Your task to perform on an android device: turn off notifications settings in the gmail app Image 0: 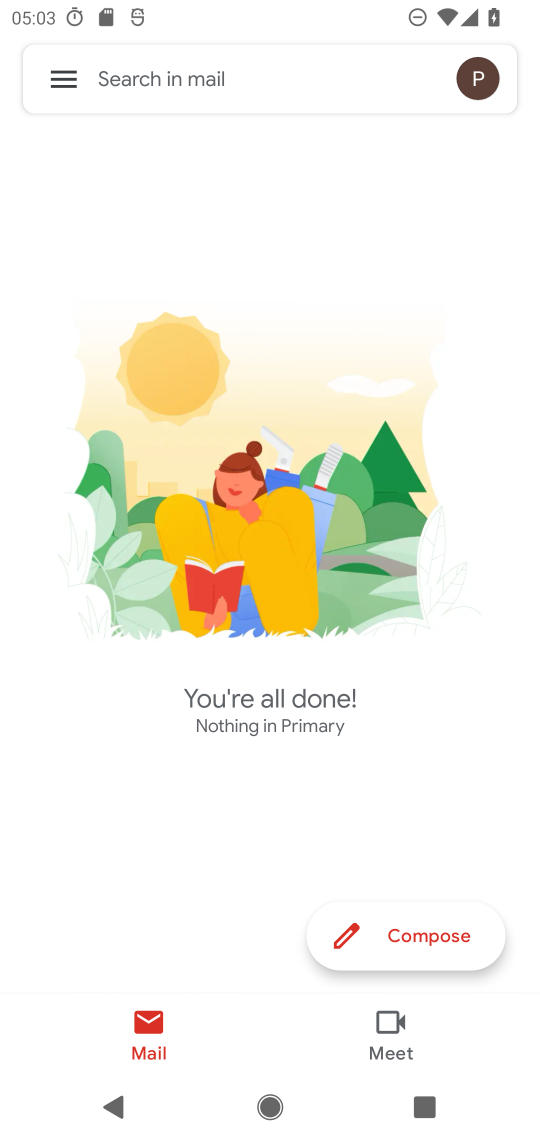
Step 0: press home button
Your task to perform on an android device: turn off notifications settings in the gmail app Image 1: 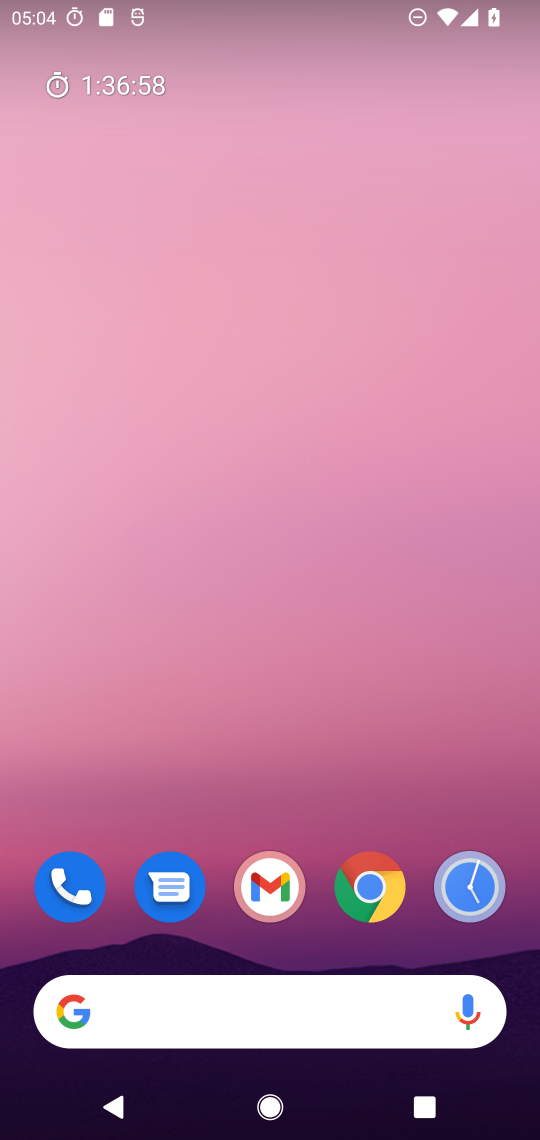
Step 1: drag from (391, 806) to (426, 423)
Your task to perform on an android device: turn off notifications settings in the gmail app Image 2: 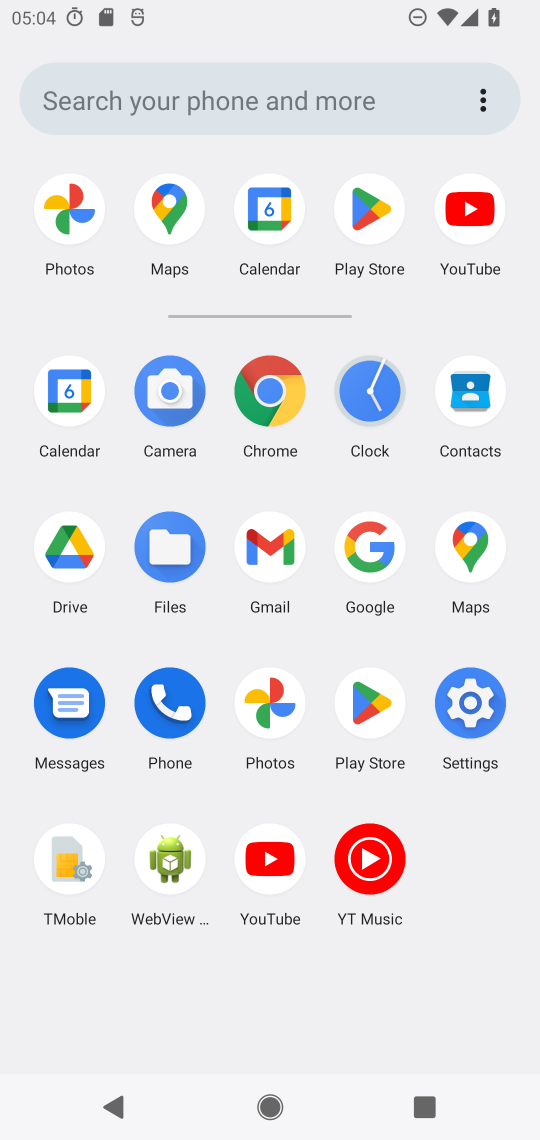
Step 2: click (284, 541)
Your task to perform on an android device: turn off notifications settings in the gmail app Image 3: 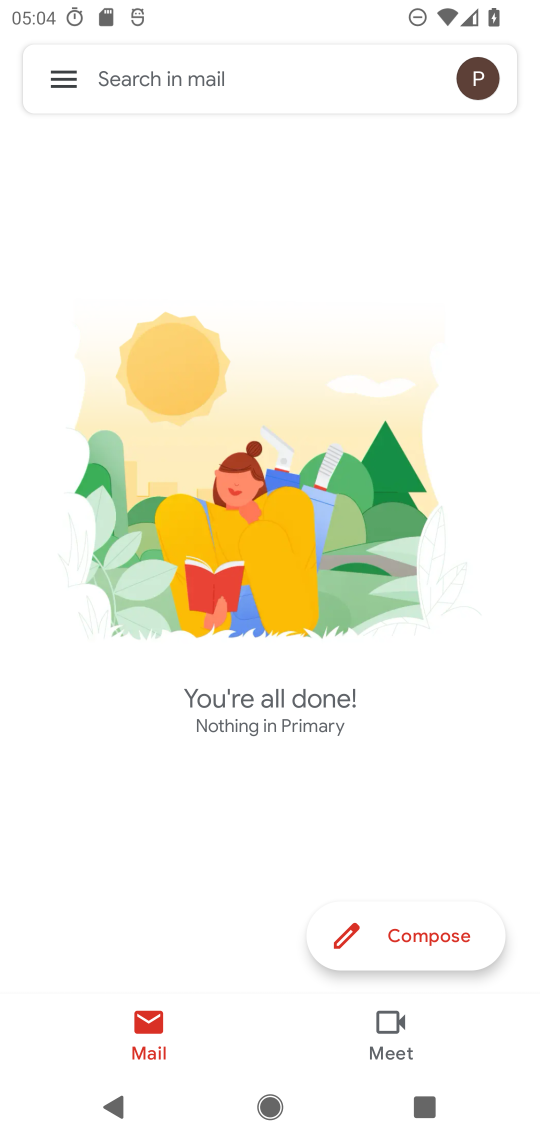
Step 3: click (63, 86)
Your task to perform on an android device: turn off notifications settings in the gmail app Image 4: 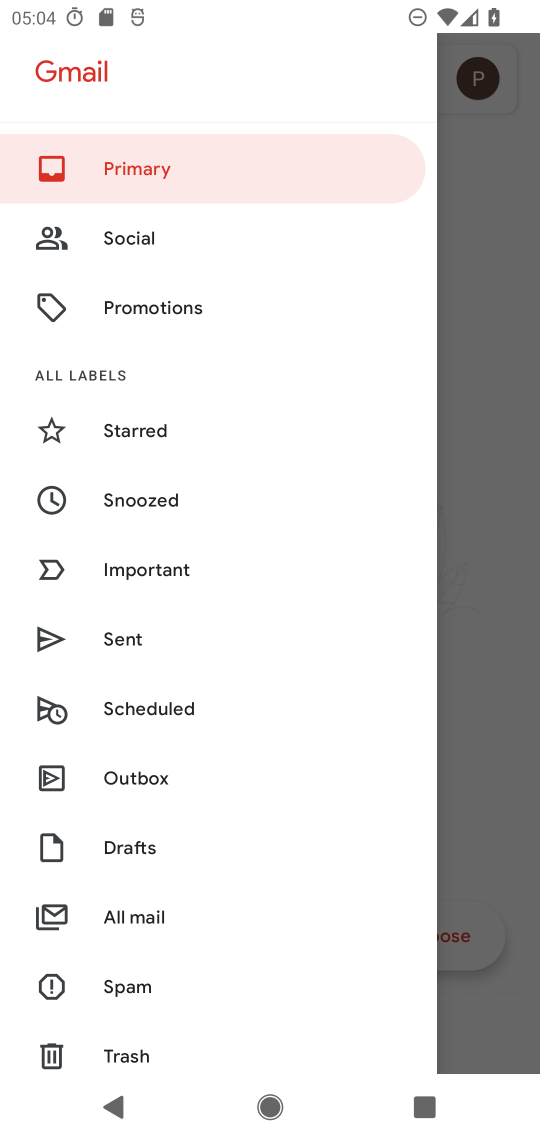
Step 4: drag from (291, 568) to (307, 432)
Your task to perform on an android device: turn off notifications settings in the gmail app Image 5: 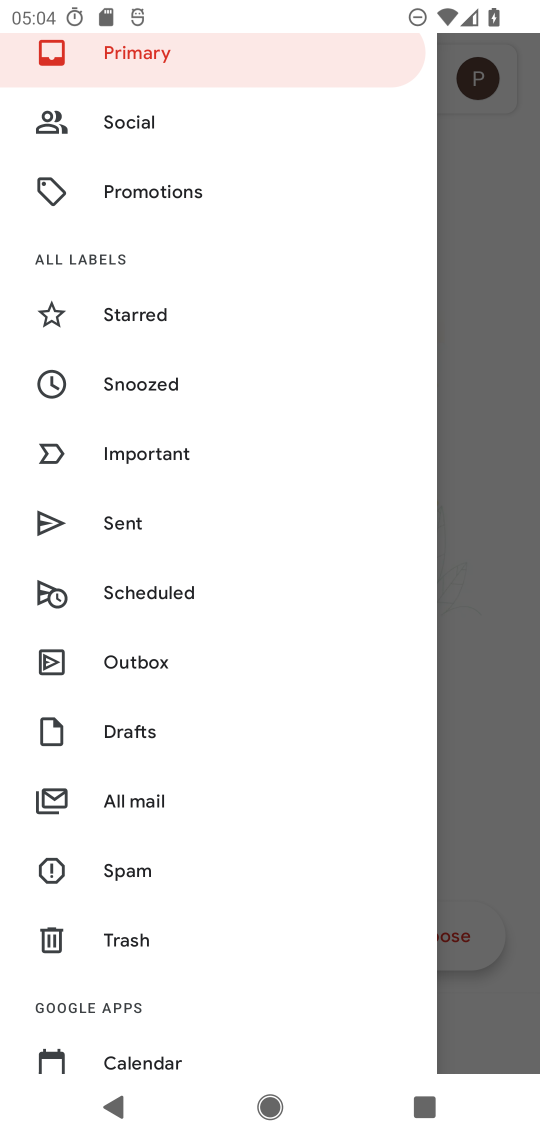
Step 5: drag from (306, 662) to (315, 437)
Your task to perform on an android device: turn off notifications settings in the gmail app Image 6: 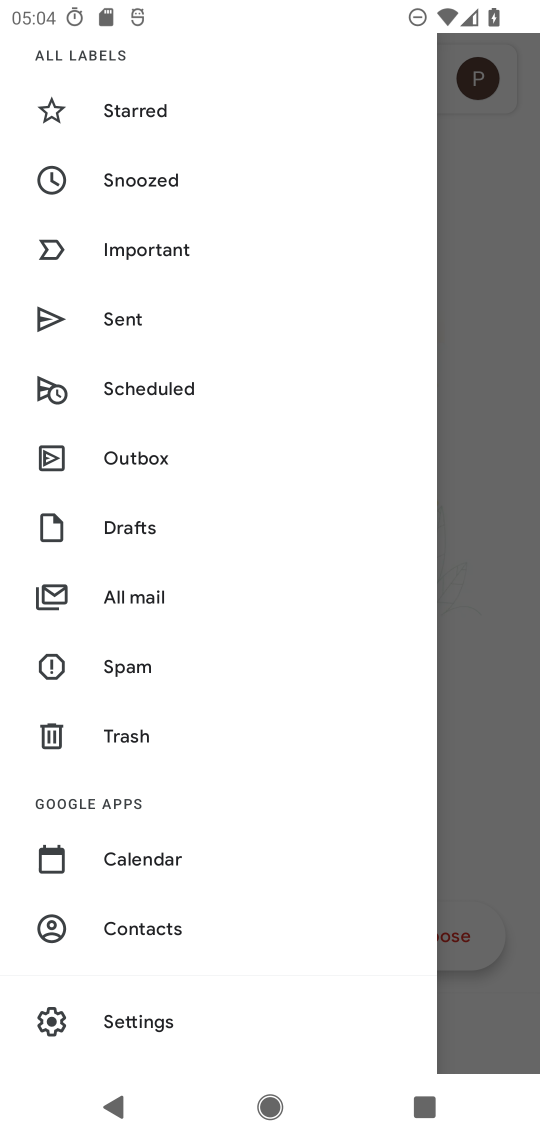
Step 6: drag from (296, 670) to (317, 502)
Your task to perform on an android device: turn off notifications settings in the gmail app Image 7: 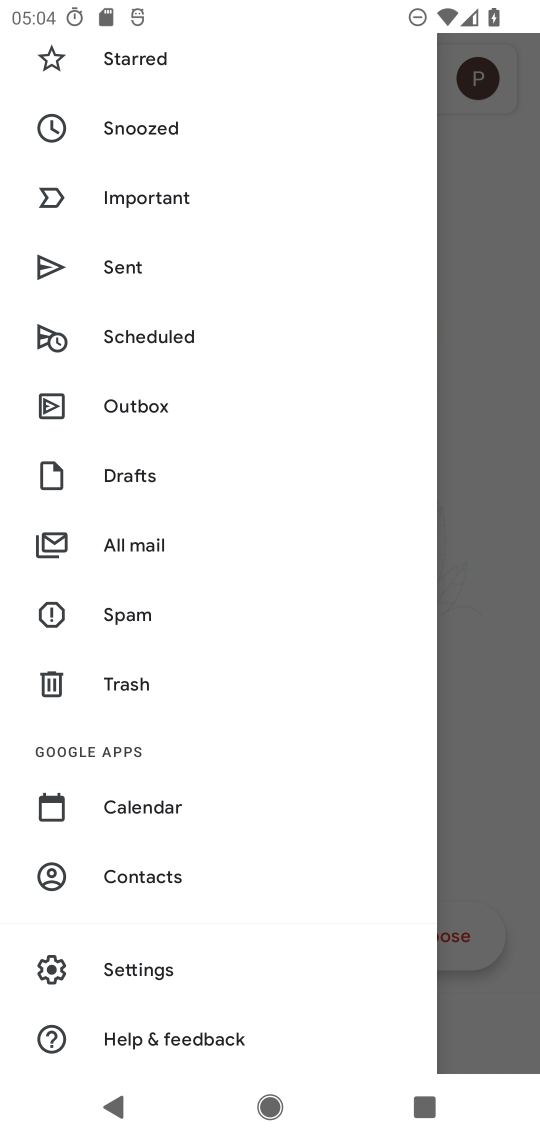
Step 7: click (242, 965)
Your task to perform on an android device: turn off notifications settings in the gmail app Image 8: 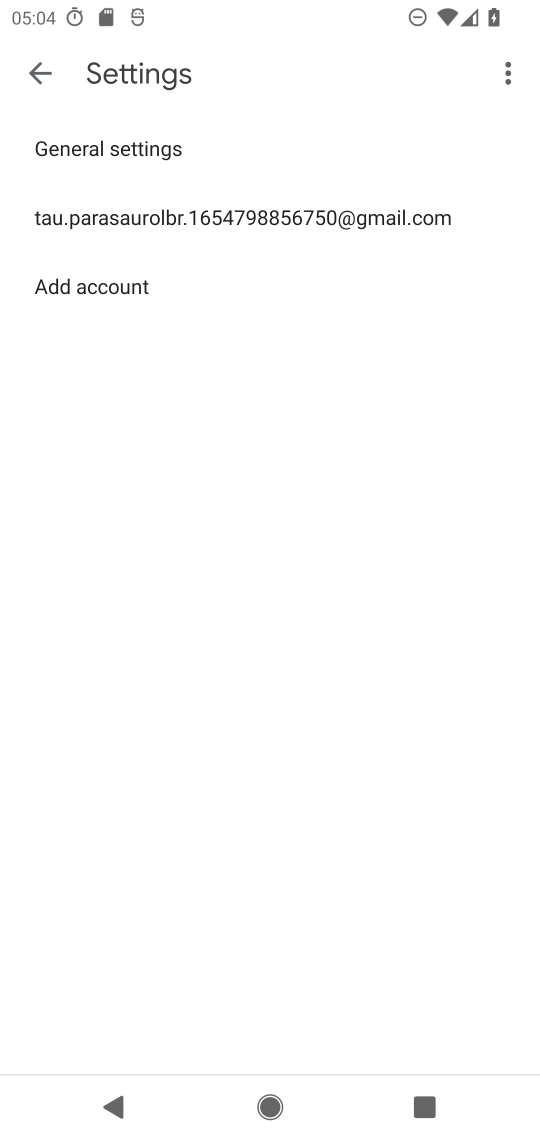
Step 8: click (282, 219)
Your task to perform on an android device: turn off notifications settings in the gmail app Image 9: 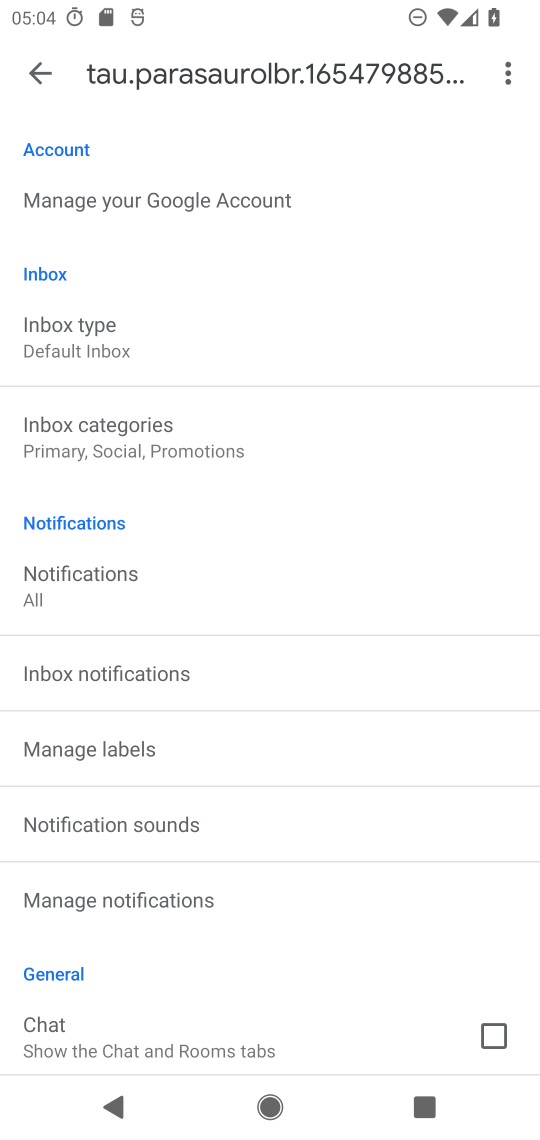
Step 9: drag from (328, 905) to (331, 737)
Your task to perform on an android device: turn off notifications settings in the gmail app Image 10: 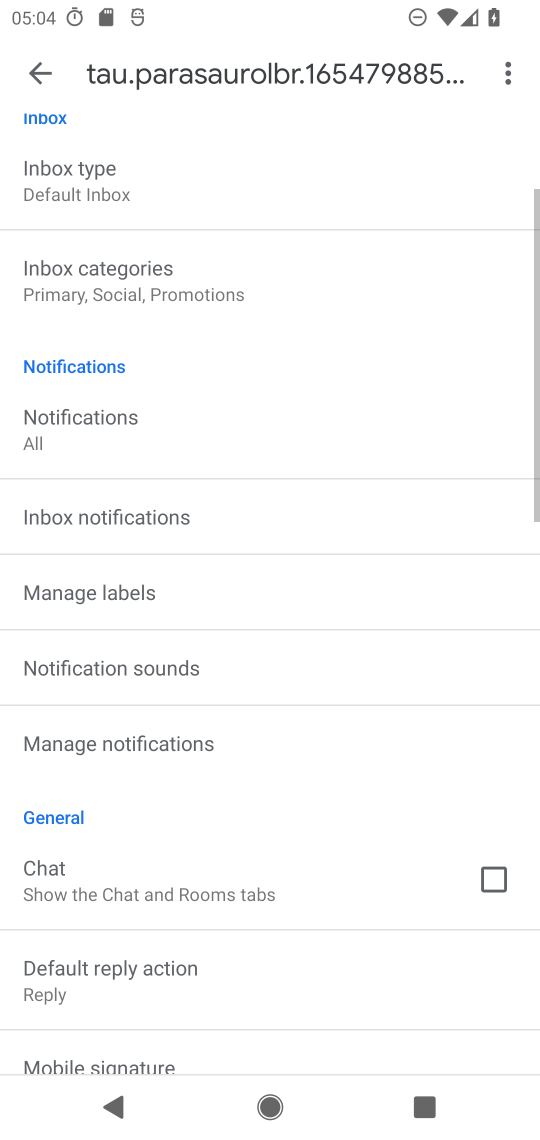
Step 10: drag from (326, 922) to (340, 759)
Your task to perform on an android device: turn off notifications settings in the gmail app Image 11: 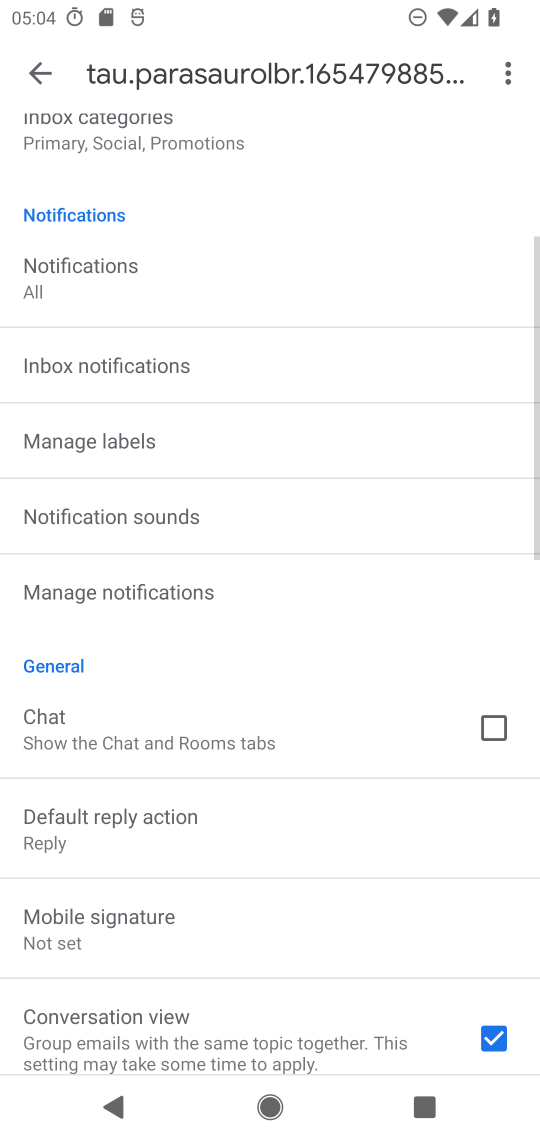
Step 11: drag from (326, 886) to (343, 725)
Your task to perform on an android device: turn off notifications settings in the gmail app Image 12: 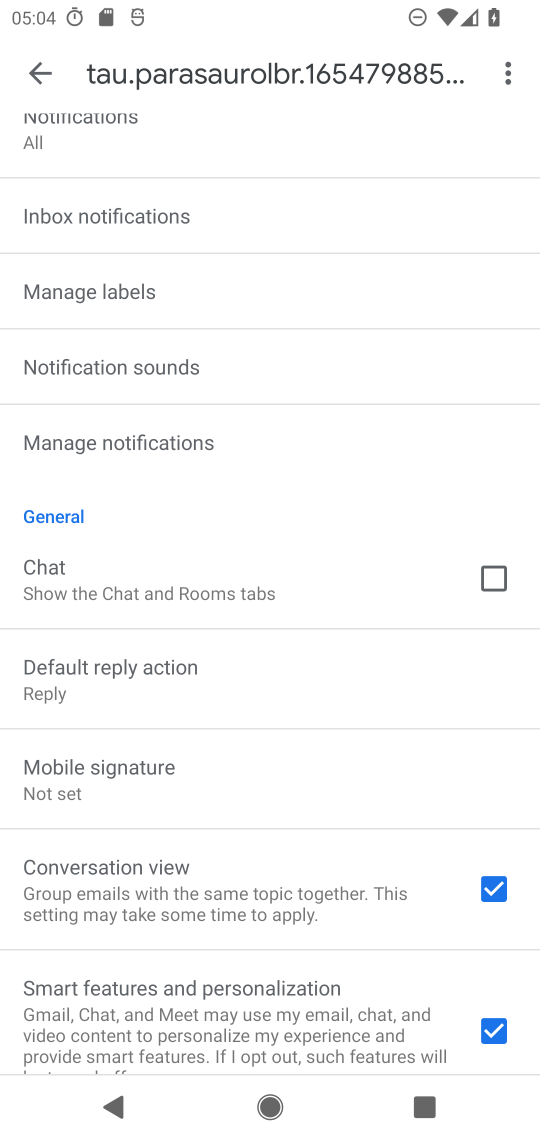
Step 12: drag from (331, 848) to (354, 696)
Your task to perform on an android device: turn off notifications settings in the gmail app Image 13: 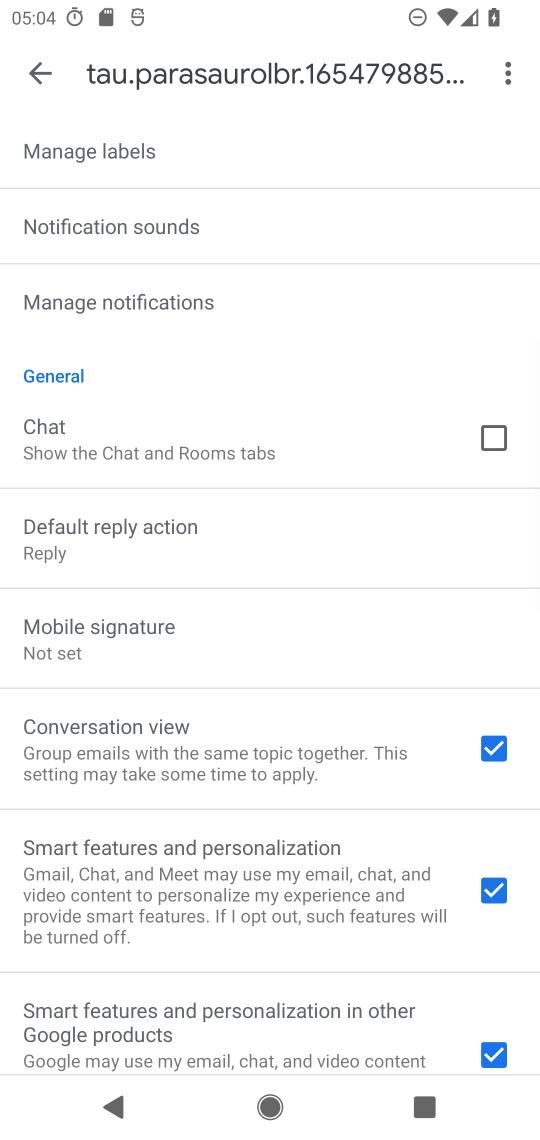
Step 13: drag from (325, 894) to (350, 730)
Your task to perform on an android device: turn off notifications settings in the gmail app Image 14: 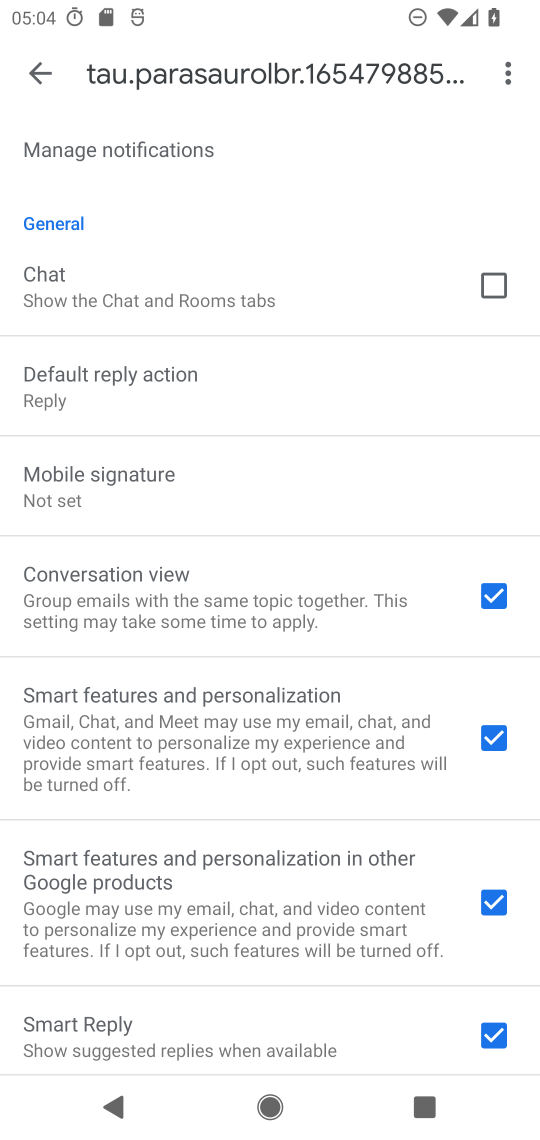
Step 14: drag from (327, 874) to (345, 695)
Your task to perform on an android device: turn off notifications settings in the gmail app Image 15: 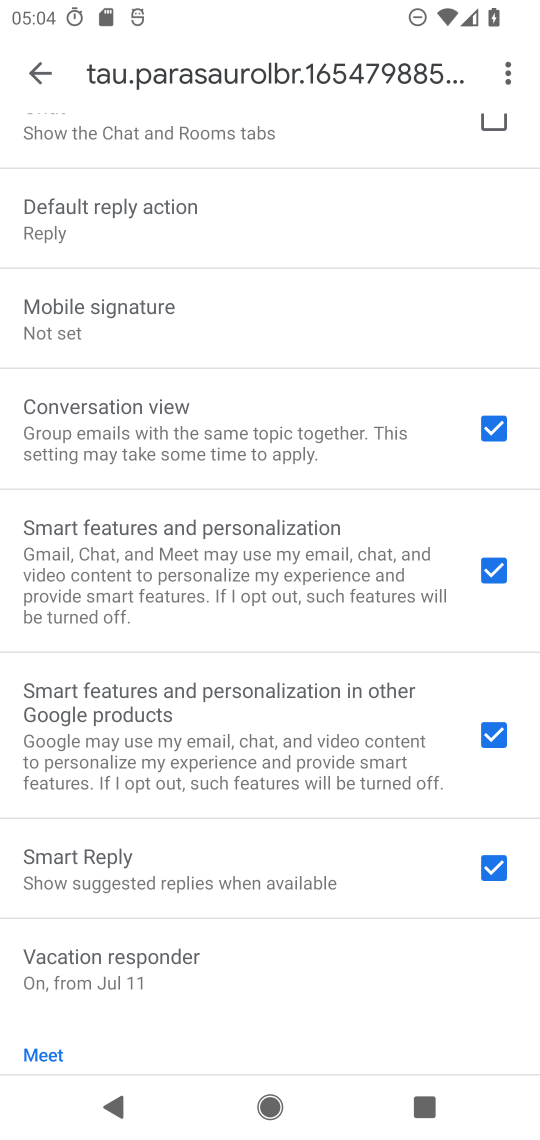
Step 15: drag from (371, 792) to (377, 734)
Your task to perform on an android device: turn off notifications settings in the gmail app Image 16: 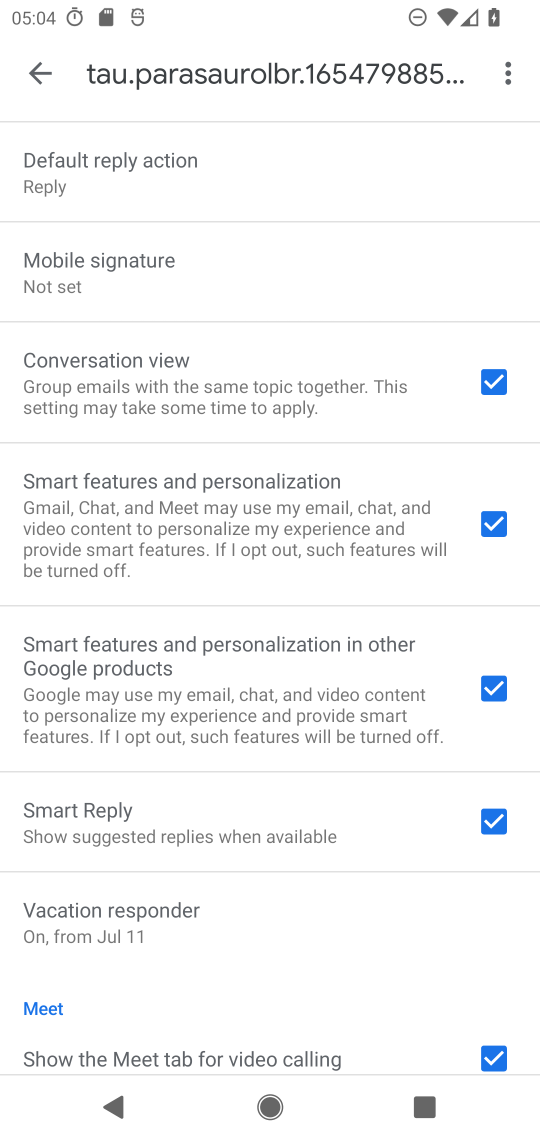
Step 16: drag from (324, 385) to (318, 569)
Your task to perform on an android device: turn off notifications settings in the gmail app Image 17: 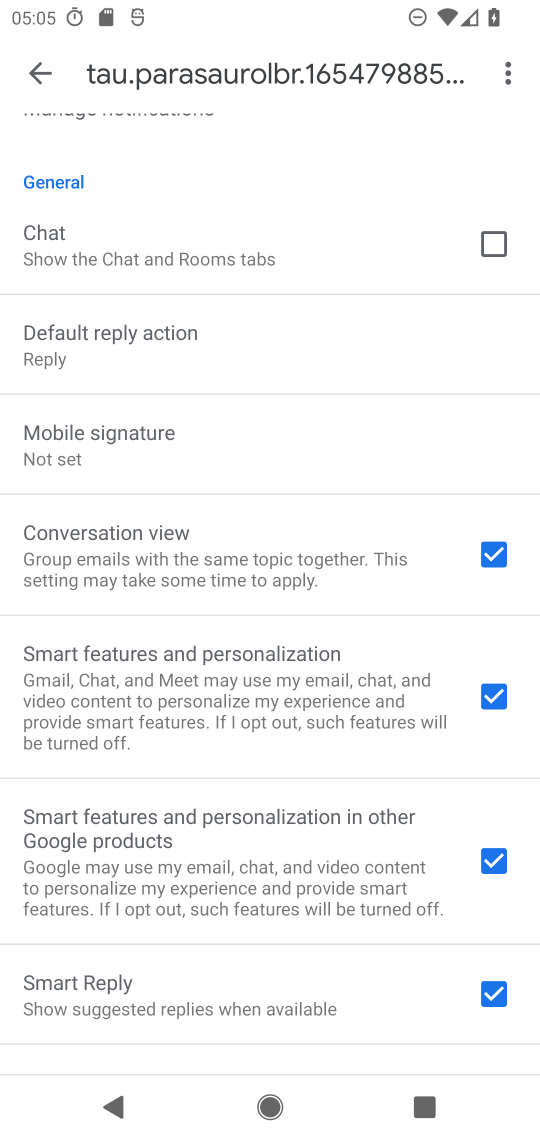
Step 17: drag from (349, 380) to (355, 554)
Your task to perform on an android device: turn off notifications settings in the gmail app Image 18: 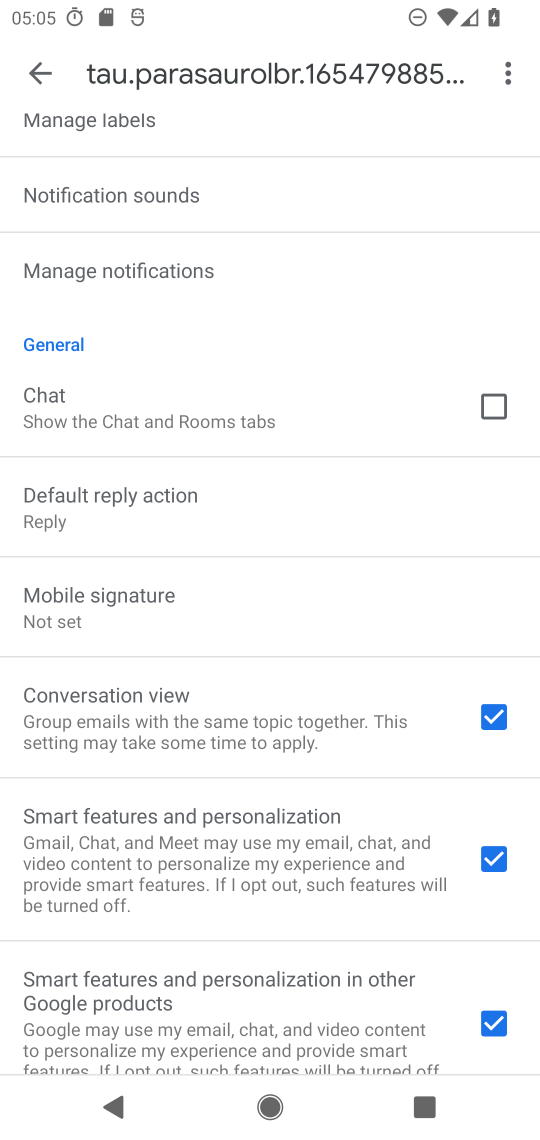
Step 18: drag from (354, 341) to (364, 626)
Your task to perform on an android device: turn off notifications settings in the gmail app Image 19: 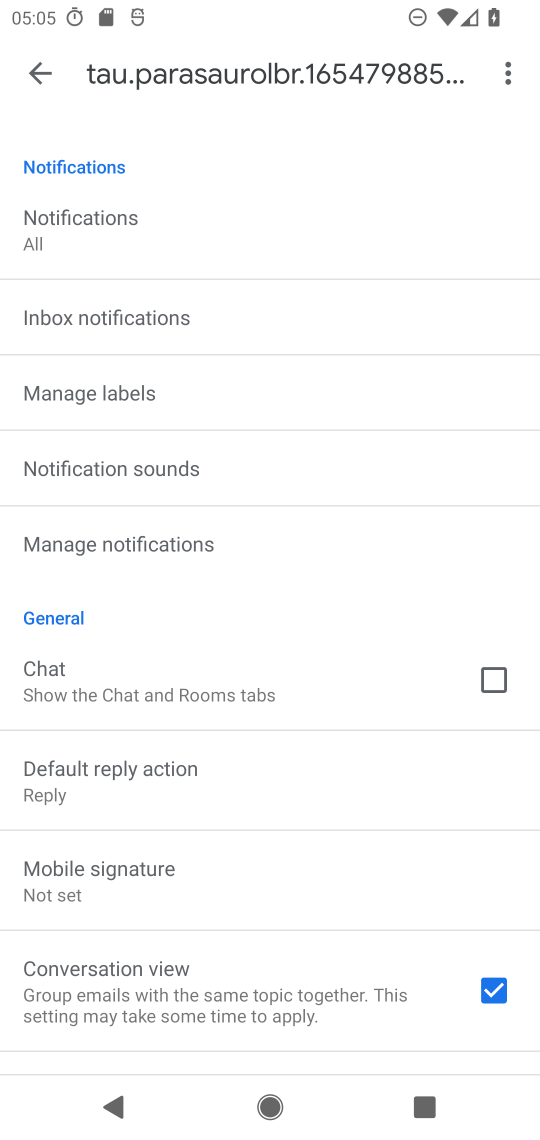
Step 19: click (281, 538)
Your task to perform on an android device: turn off notifications settings in the gmail app Image 20: 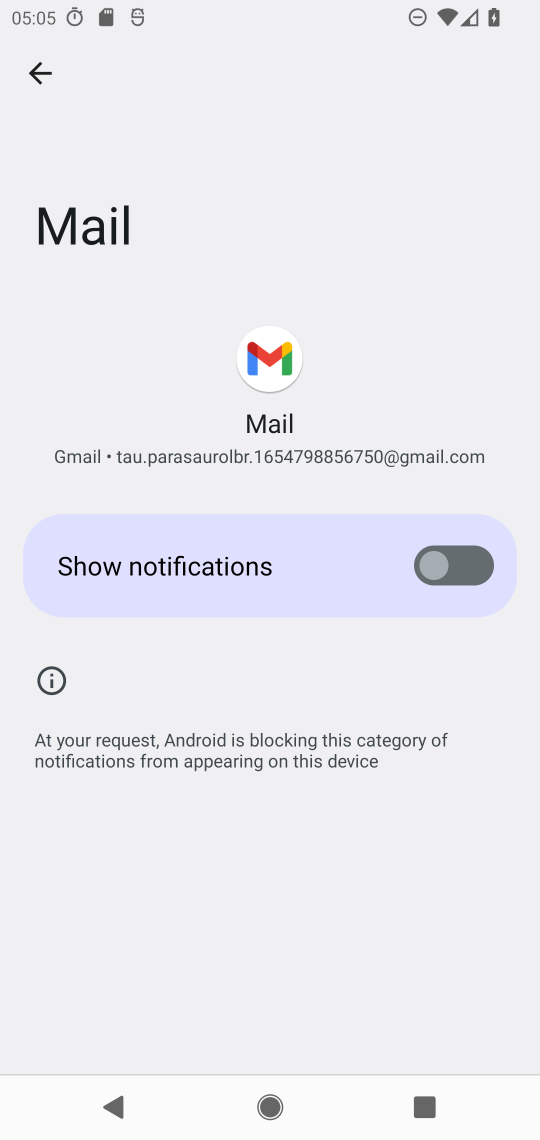
Step 20: task complete